Your task to perform on an android device: make emails show in primary in the gmail app Image 0: 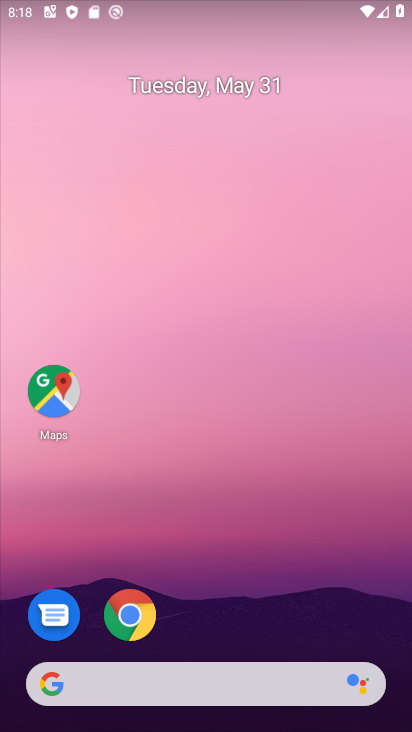
Step 0: drag from (359, 620) to (299, 34)
Your task to perform on an android device: make emails show in primary in the gmail app Image 1: 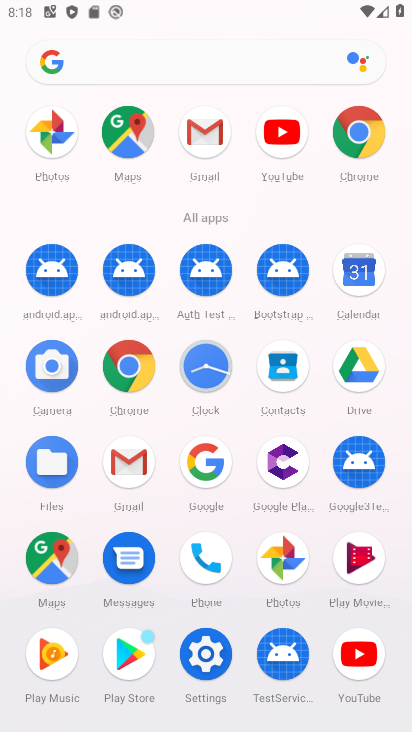
Step 1: click (129, 467)
Your task to perform on an android device: make emails show in primary in the gmail app Image 2: 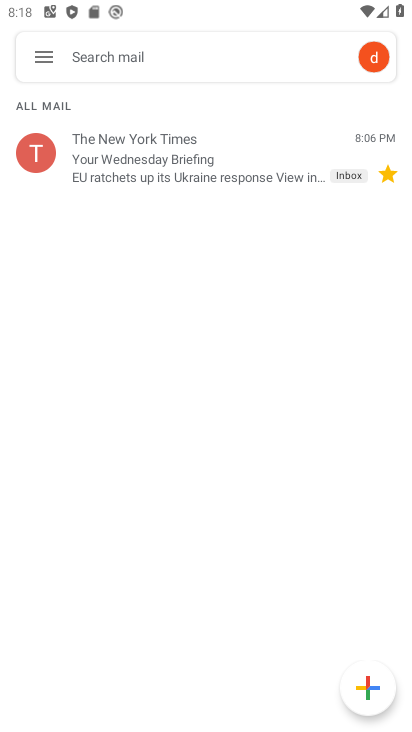
Step 2: click (44, 54)
Your task to perform on an android device: make emails show in primary in the gmail app Image 3: 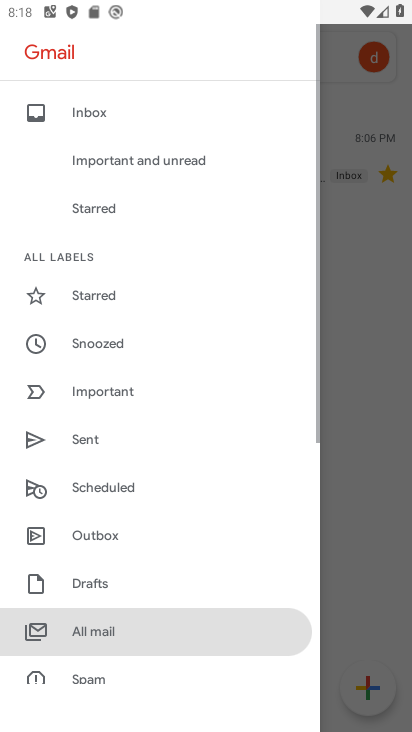
Step 3: drag from (196, 573) to (211, 118)
Your task to perform on an android device: make emails show in primary in the gmail app Image 4: 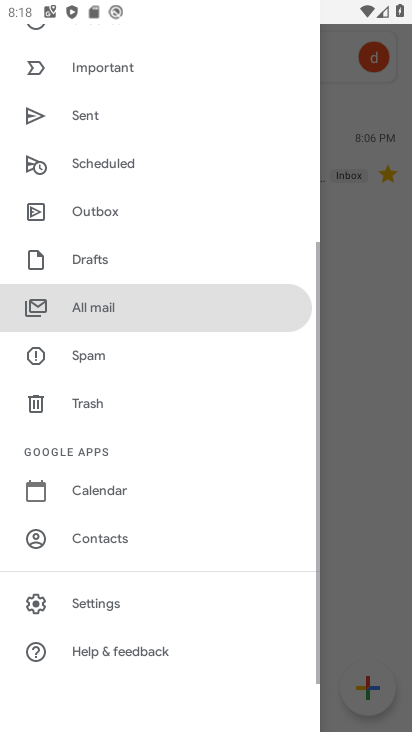
Step 4: drag from (196, 367) to (211, 141)
Your task to perform on an android device: make emails show in primary in the gmail app Image 5: 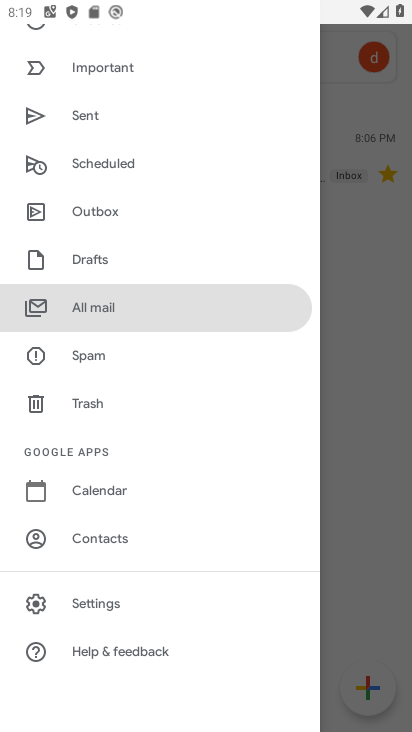
Step 5: click (102, 610)
Your task to perform on an android device: make emails show in primary in the gmail app Image 6: 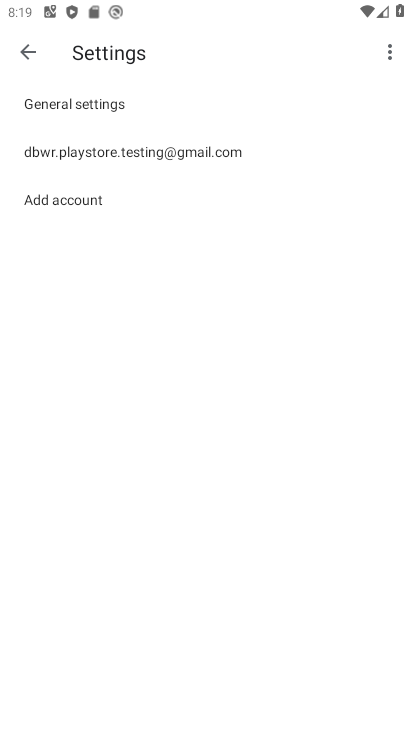
Step 6: click (146, 147)
Your task to perform on an android device: make emails show in primary in the gmail app Image 7: 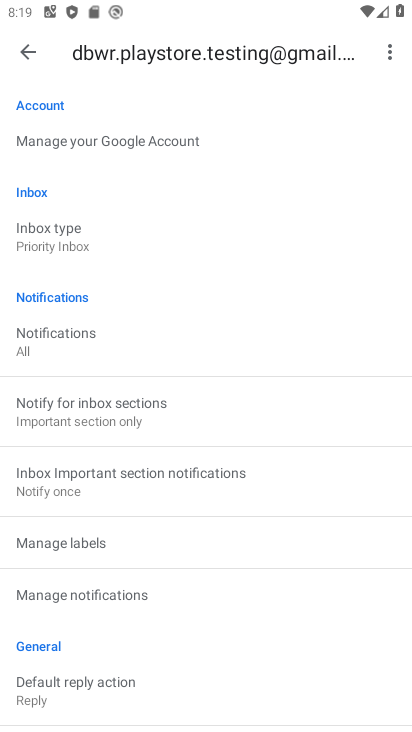
Step 7: click (50, 228)
Your task to perform on an android device: make emails show in primary in the gmail app Image 8: 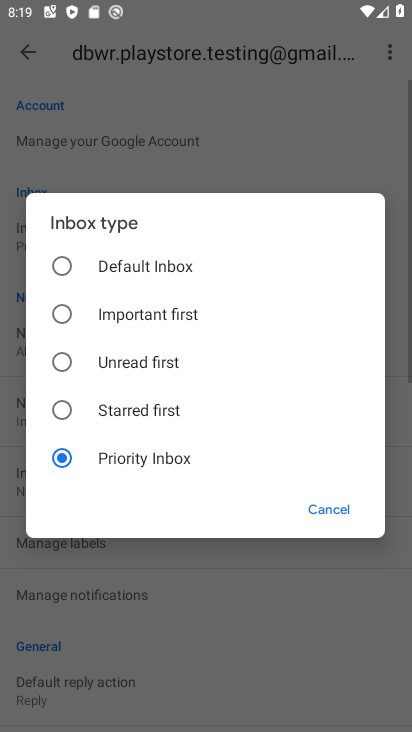
Step 8: click (61, 264)
Your task to perform on an android device: make emails show in primary in the gmail app Image 9: 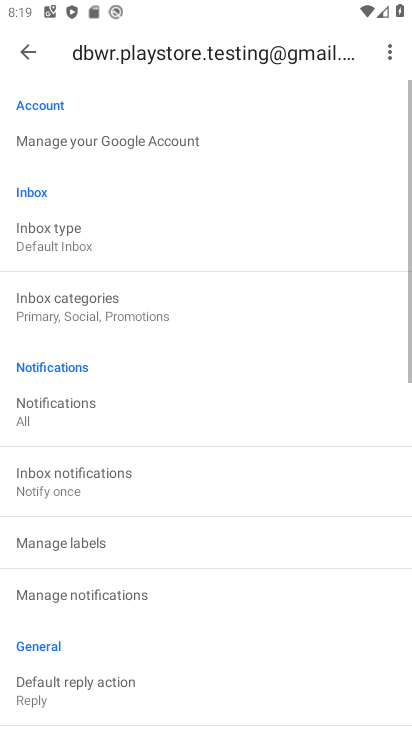
Step 9: click (96, 305)
Your task to perform on an android device: make emails show in primary in the gmail app Image 10: 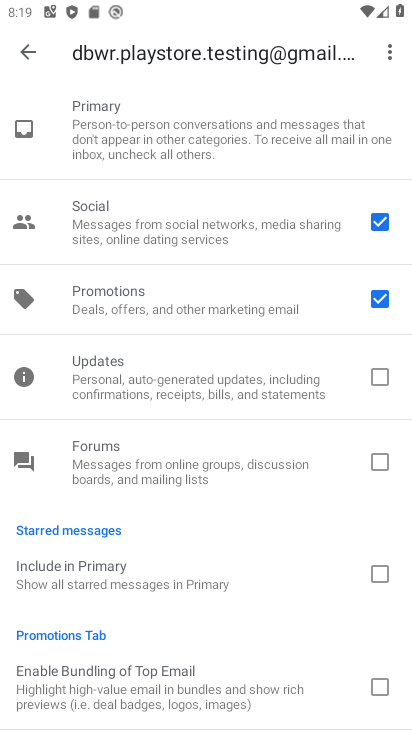
Step 10: click (380, 297)
Your task to perform on an android device: make emails show in primary in the gmail app Image 11: 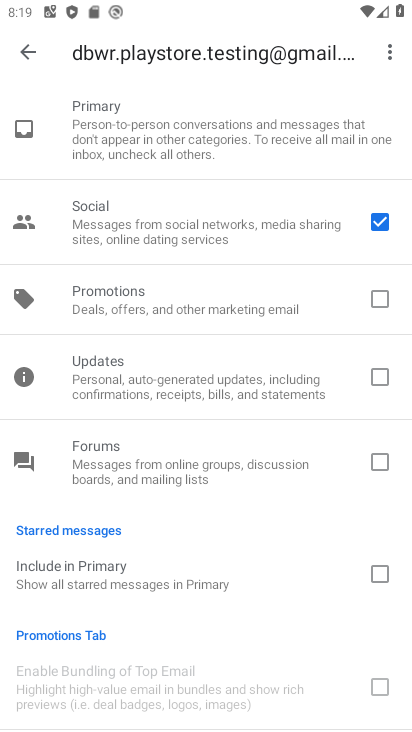
Step 11: click (381, 221)
Your task to perform on an android device: make emails show in primary in the gmail app Image 12: 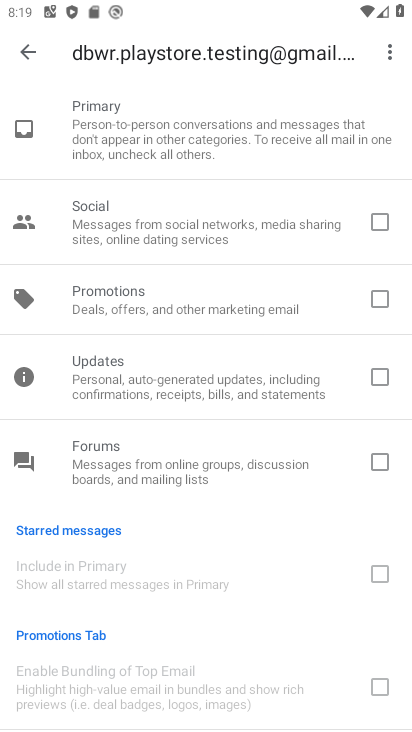
Step 12: task complete